Your task to perform on an android device: Open Google Chrome Image 0: 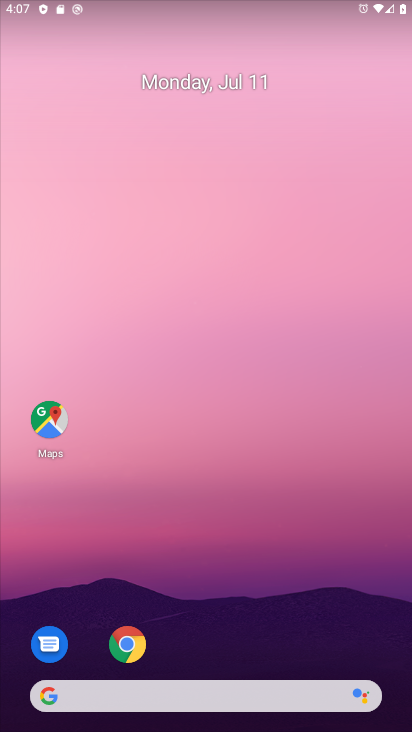
Step 0: drag from (218, 676) to (400, 667)
Your task to perform on an android device: Open Google Chrome Image 1: 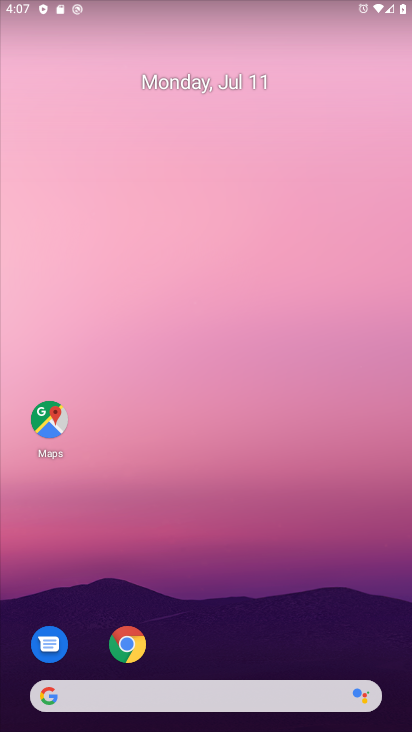
Step 1: drag from (260, 701) to (335, 12)
Your task to perform on an android device: Open Google Chrome Image 2: 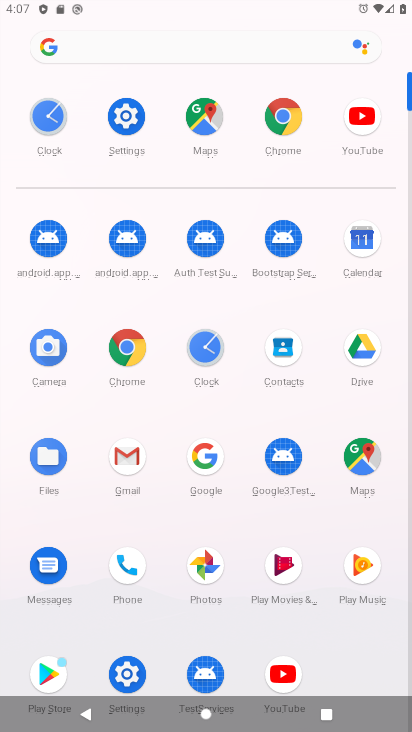
Step 2: click (131, 339)
Your task to perform on an android device: Open Google Chrome Image 3: 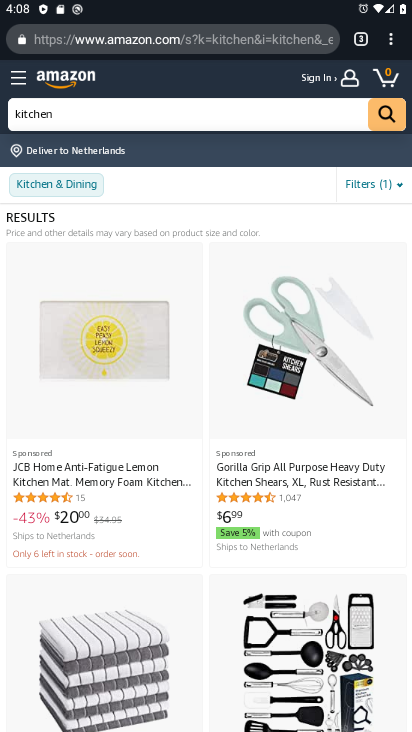
Step 3: task complete